Your task to perform on an android device: Open Youtube and go to the subscriptions tab Image 0: 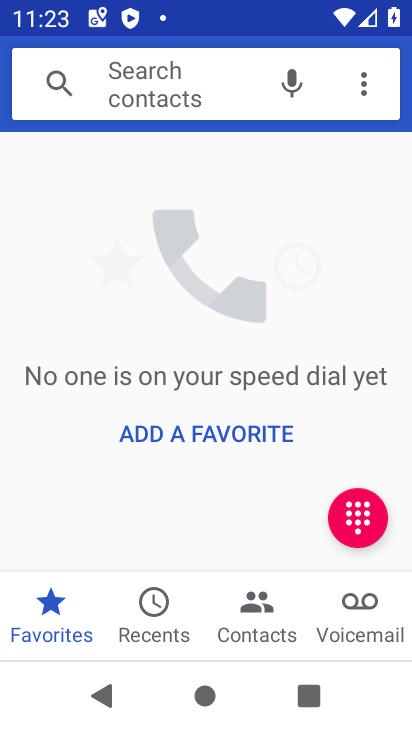
Step 0: press home button
Your task to perform on an android device: Open Youtube and go to the subscriptions tab Image 1: 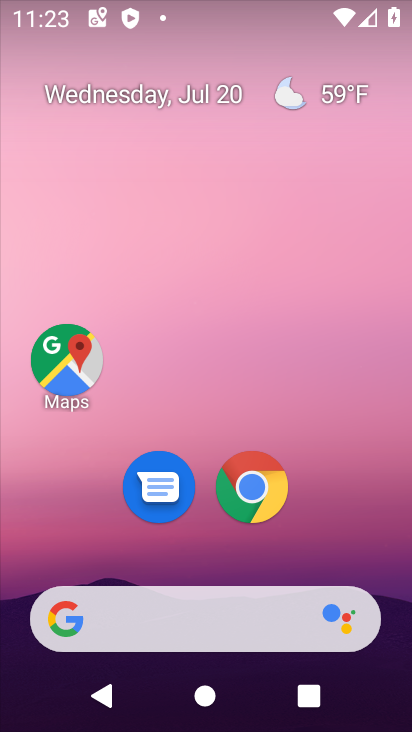
Step 1: drag from (351, 488) to (407, 53)
Your task to perform on an android device: Open Youtube and go to the subscriptions tab Image 2: 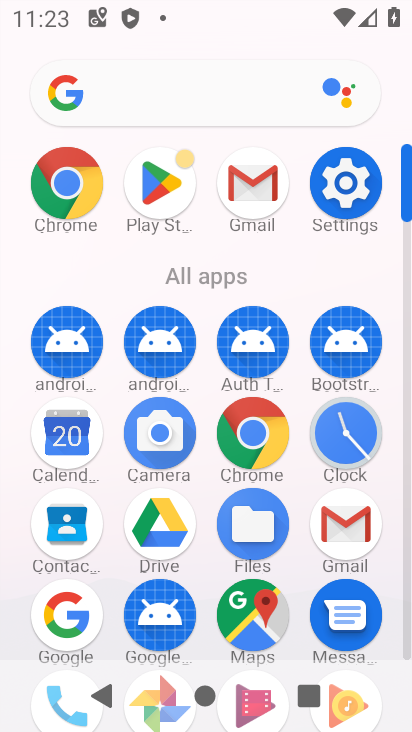
Step 2: drag from (396, 541) to (411, 214)
Your task to perform on an android device: Open Youtube and go to the subscriptions tab Image 3: 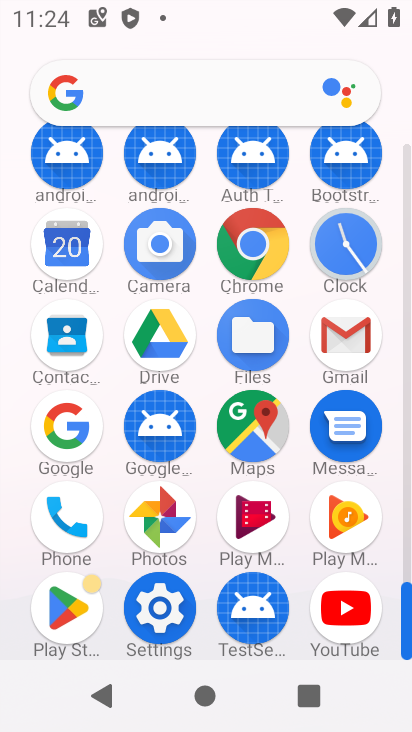
Step 3: click (357, 611)
Your task to perform on an android device: Open Youtube and go to the subscriptions tab Image 4: 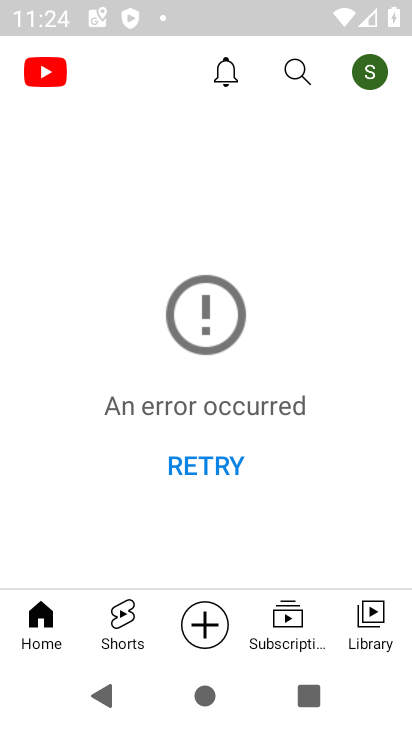
Step 4: click (297, 630)
Your task to perform on an android device: Open Youtube and go to the subscriptions tab Image 5: 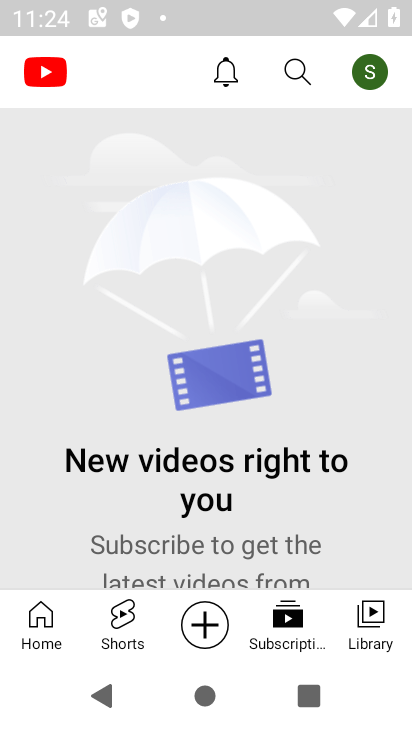
Step 5: task complete